Your task to perform on an android device: see tabs open on other devices in the chrome app Image 0: 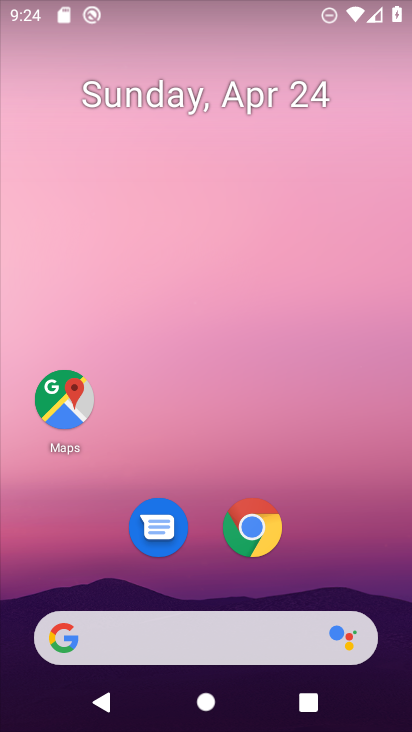
Step 0: drag from (389, 607) to (294, 61)
Your task to perform on an android device: see tabs open on other devices in the chrome app Image 1: 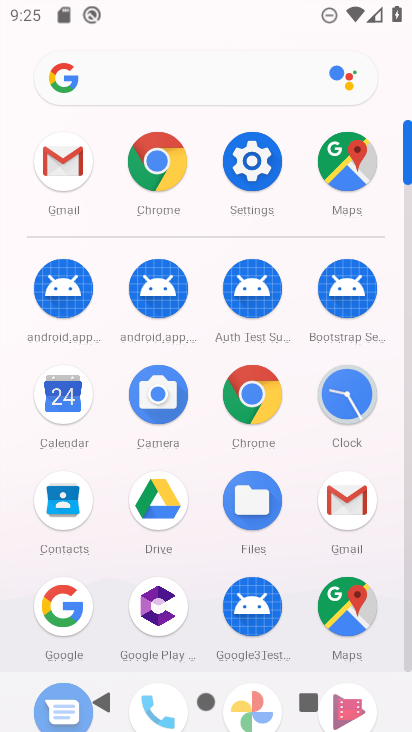
Step 1: click (247, 394)
Your task to perform on an android device: see tabs open on other devices in the chrome app Image 2: 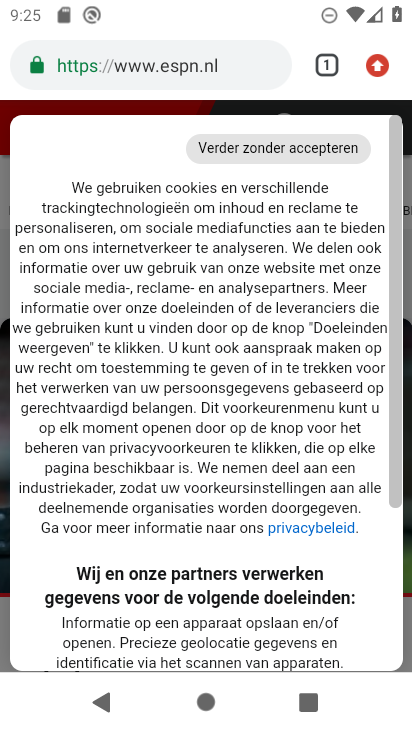
Step 2: task complete